Your task to perform on an android device: Search for seafood restaurants on Google Maps Image 0: 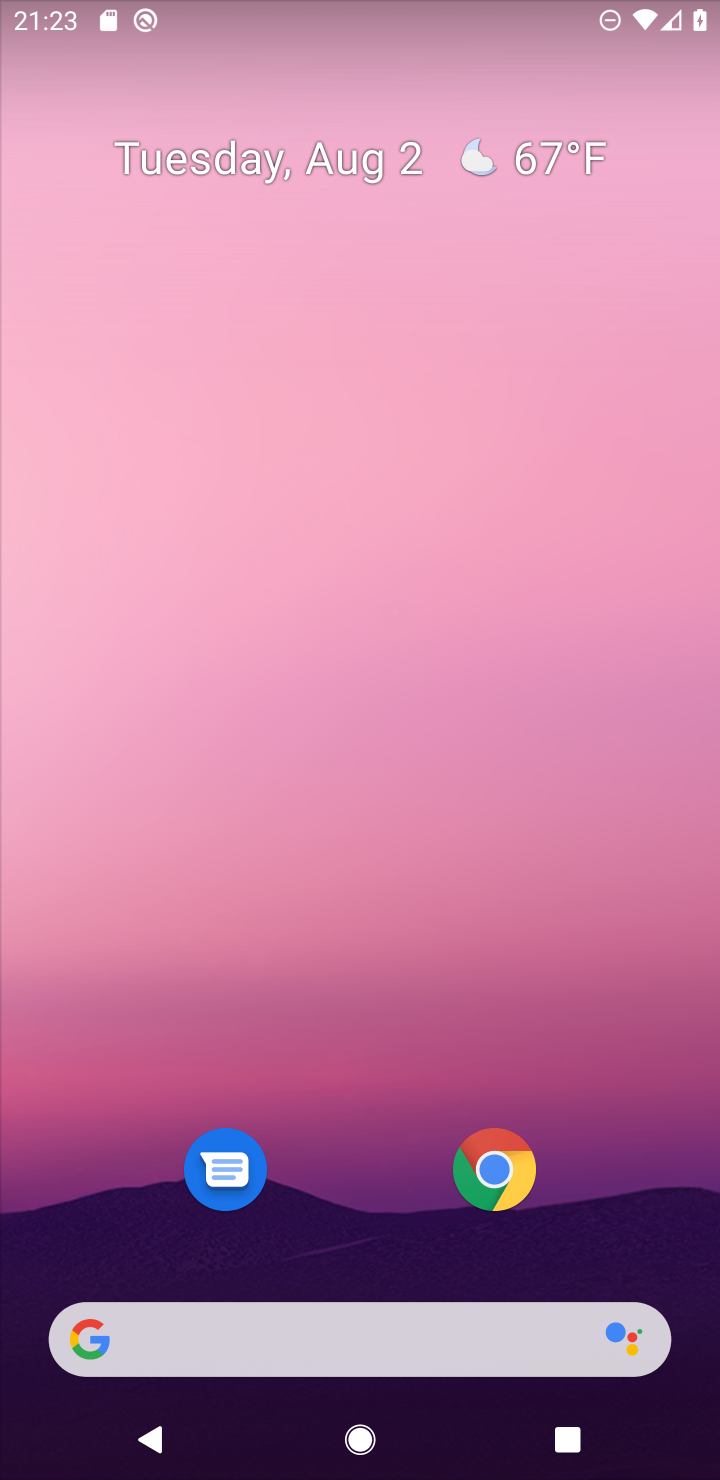
Step 0: drag from (368, 1217) to (368, 201)
Your task to perform on an android device: Search for seafood restaurants on Google Maps Image 1: 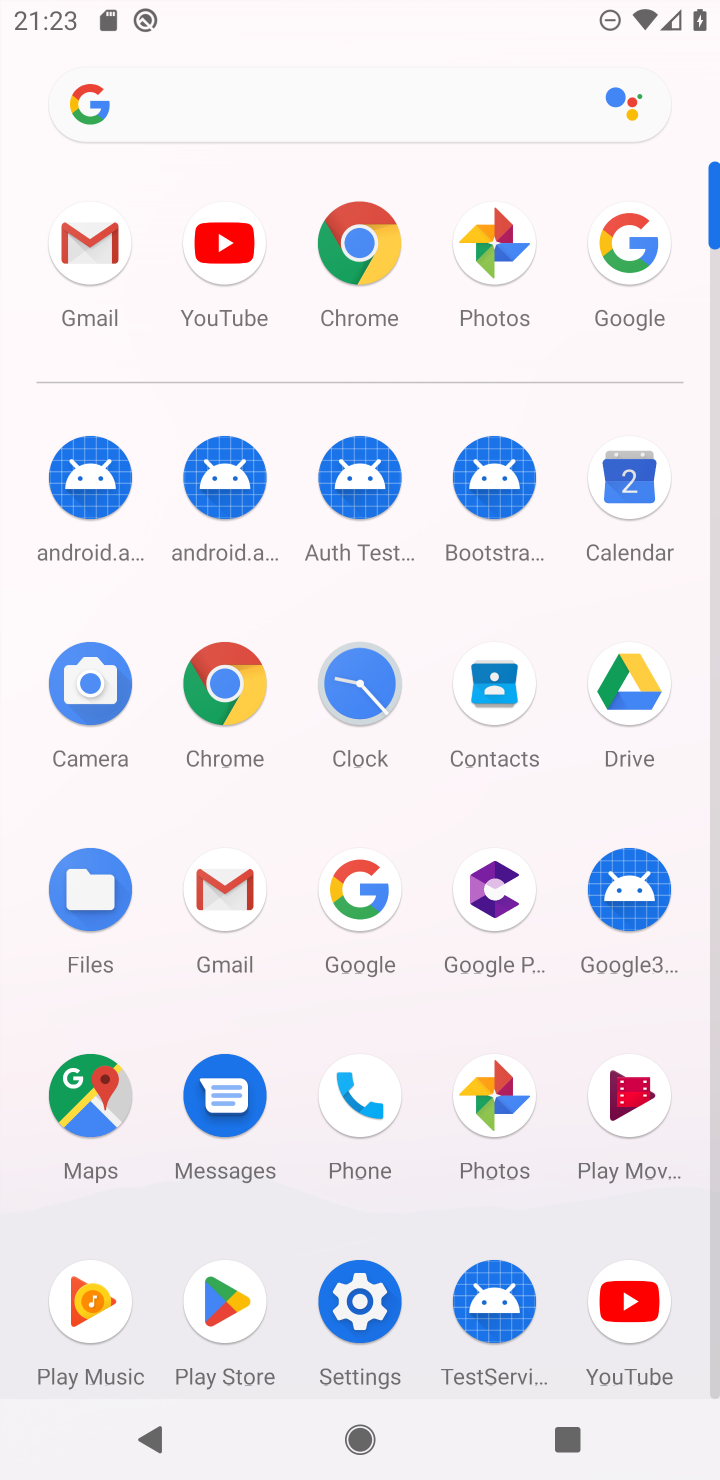
Step 1: click (91, 1079)
Your task to perform on an android device: Search for seafood restaurants on Google Maps Image 2: 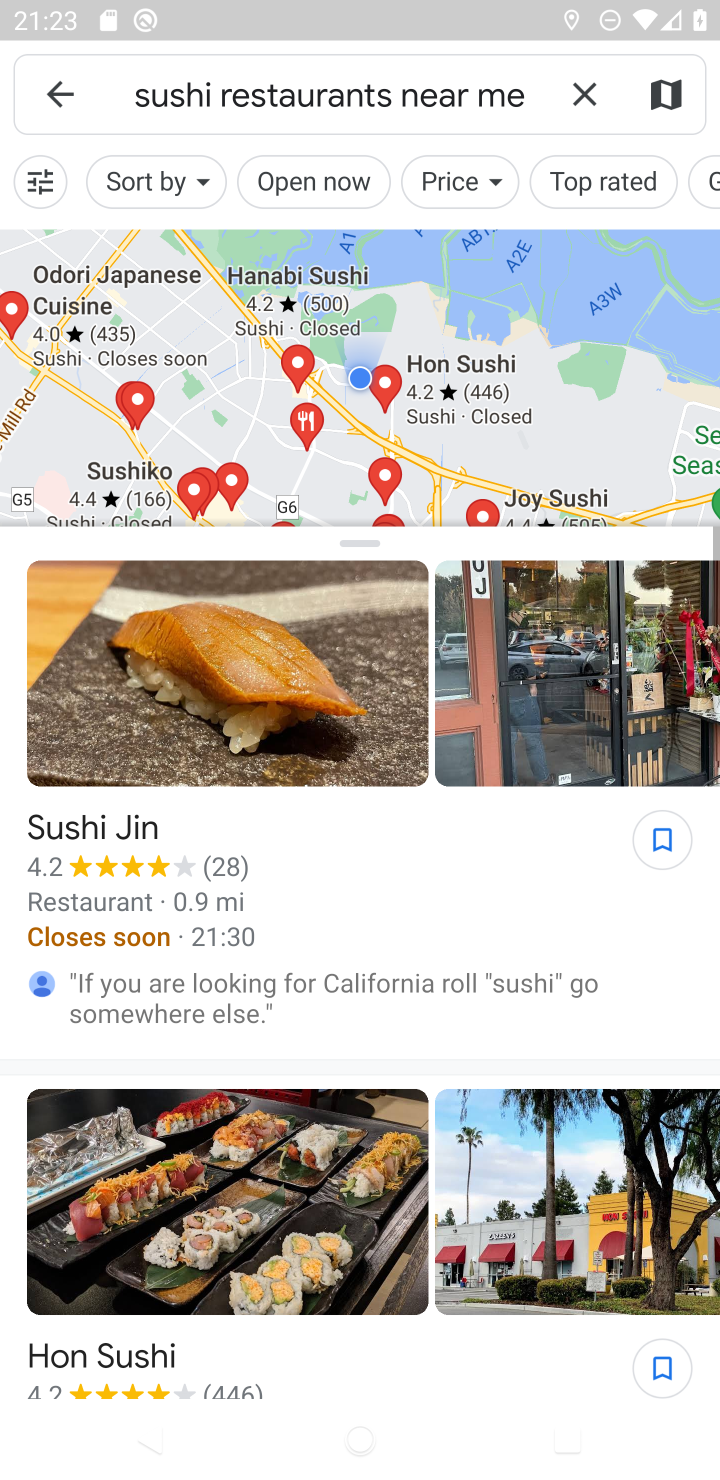
Step 2: click (575, 88)
Your task to perform on an android device: Search for seafood restaurants on Google Maps Image 3: 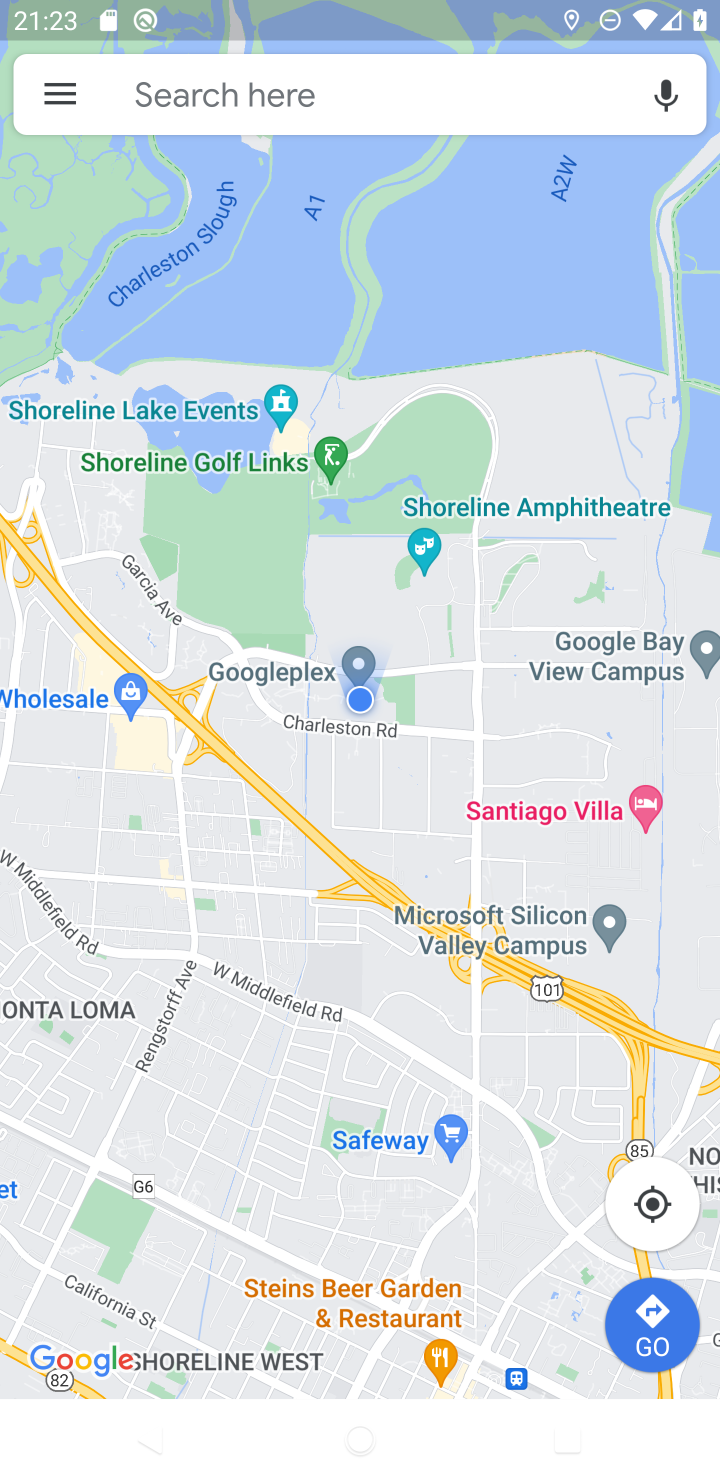
Step 3: click (417, 104)
Your task to perform on an android device: Search for seafood restaurants on Google Maps Image 4: 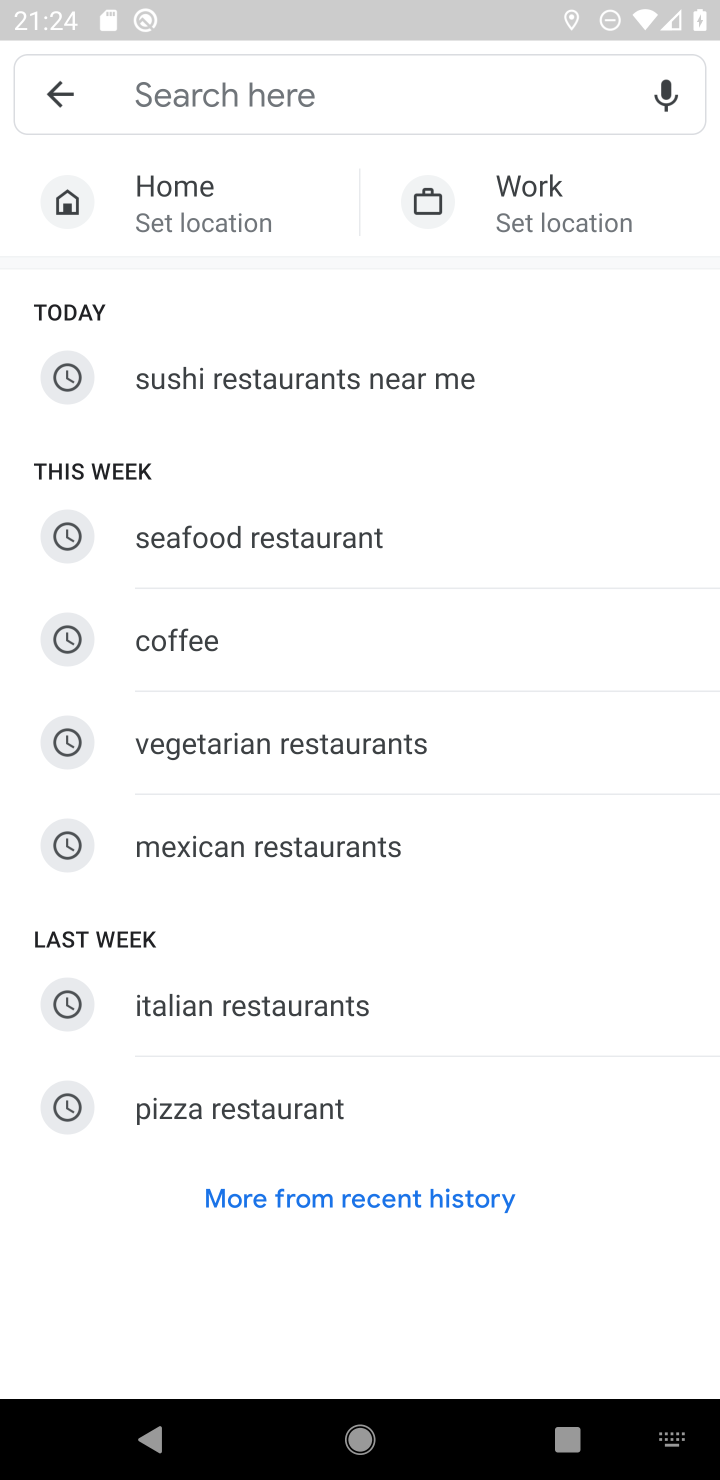
Step 4: type "Seafood restaurants"
Your task to perform on an android device: Search for seafood restaurants on Google Maps Image 5: 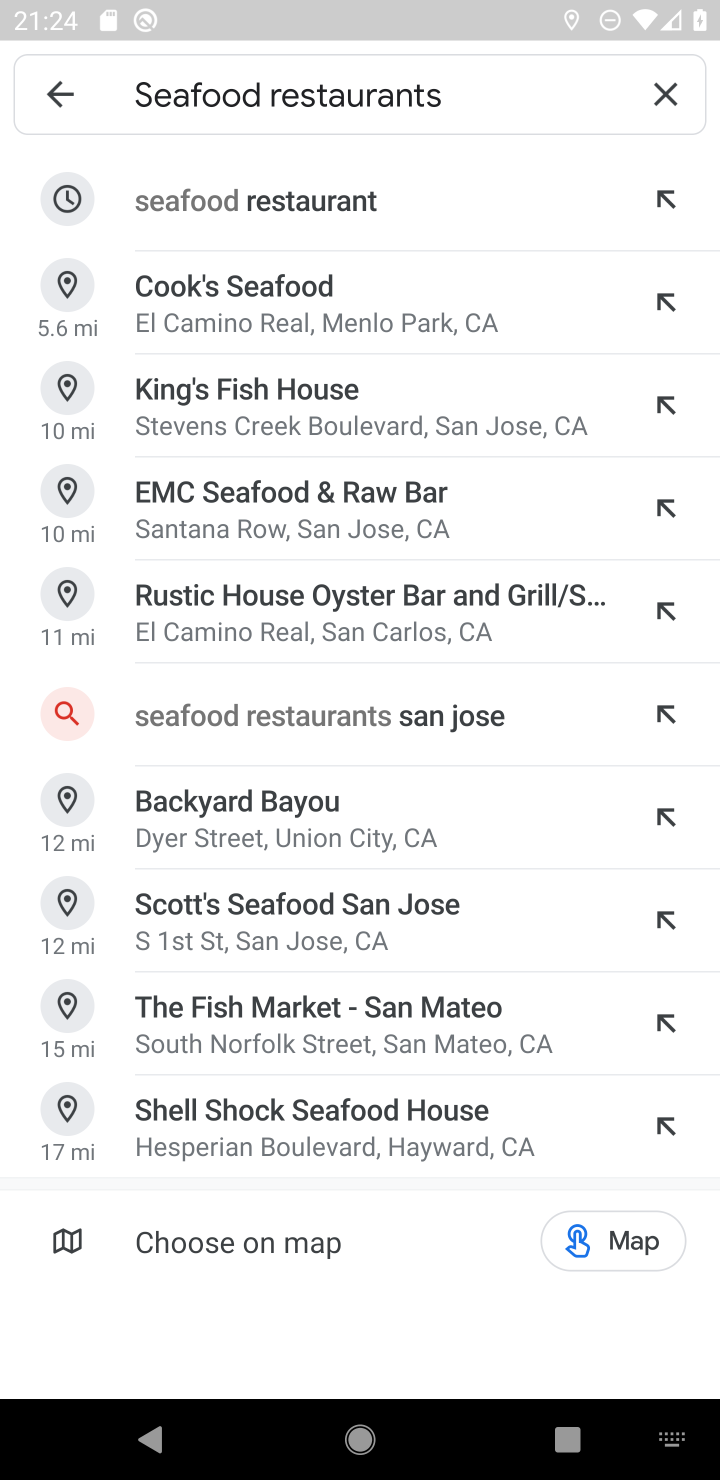
Step 5: click (309, 198)
Your task to perform on an android device: Search for seafood restaurants on Google Maps Image 6: 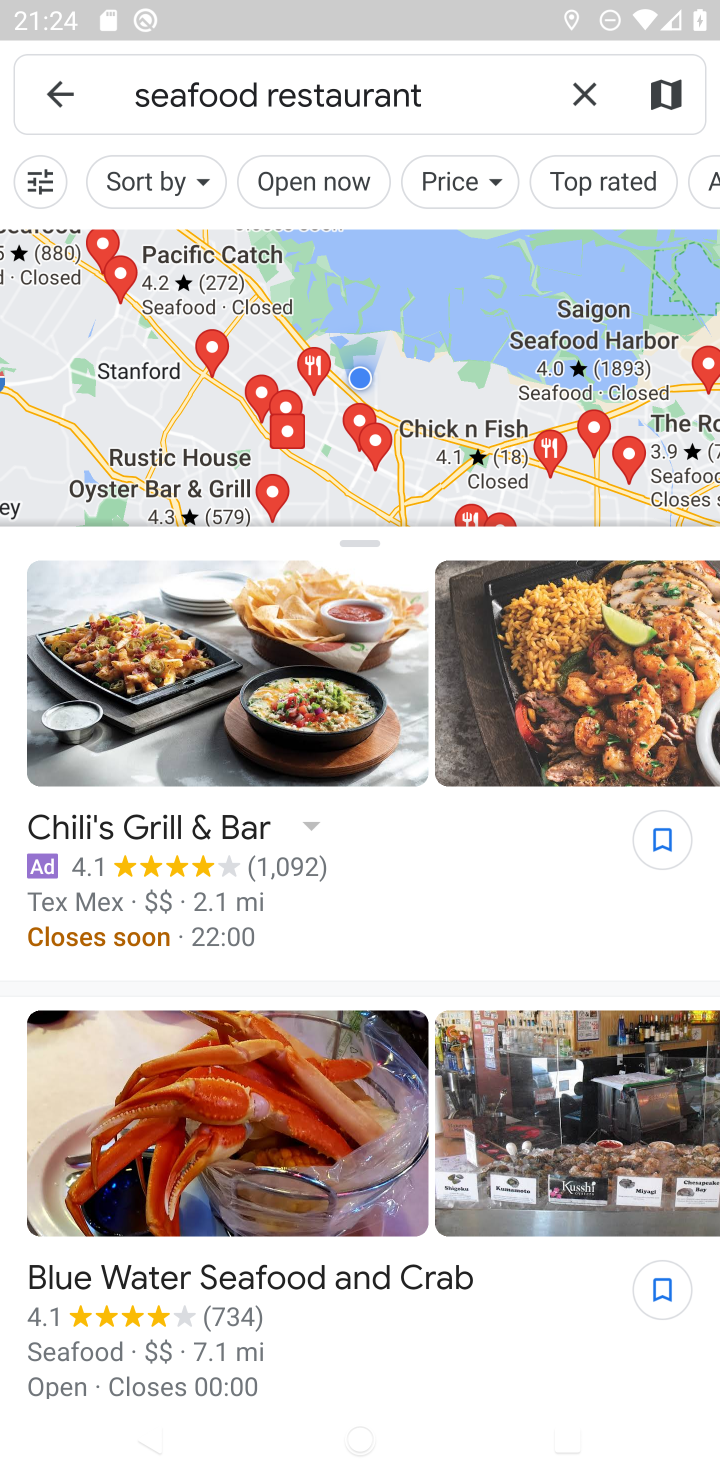
Step 6: task complete